Your task to perform on an android device: add a label to a message in the gmail app Image 0: 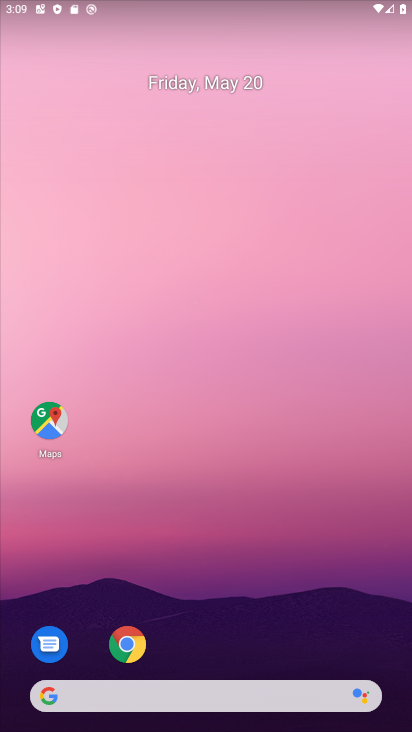
Step 0: drag from (307, 587) to (165, 50)
Your task to perform on an android device: add a label to a message in the gmail app Image 1: 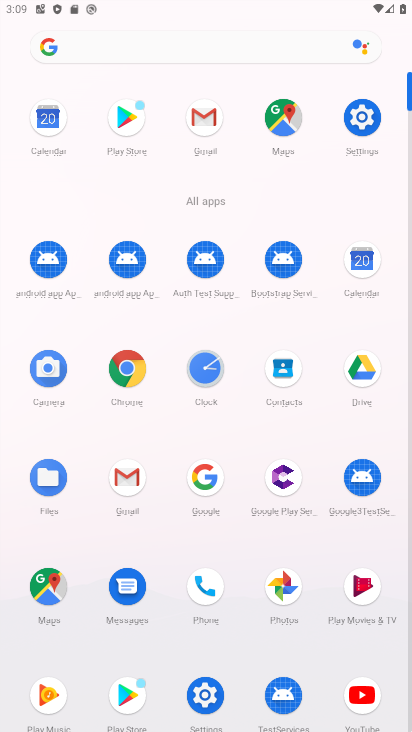
Step 1: click (216, 138)
Your task to perform on an android device: add a label to a message in the gmail app Image 2: 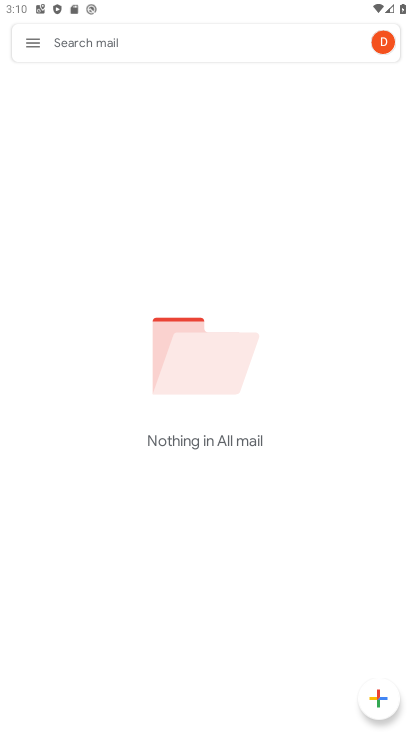
Step 2: task complete